Your task to perform on an android device: Open sound settings Image 0: 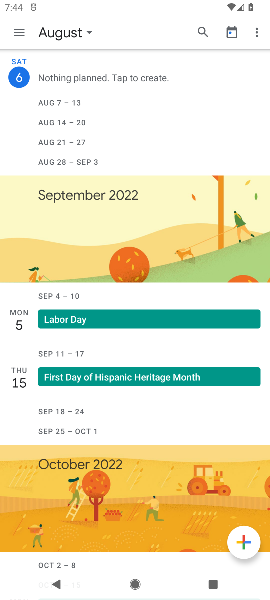
Step 0: press home button
Your task to perform on an android device: Open sound settings Image 1: 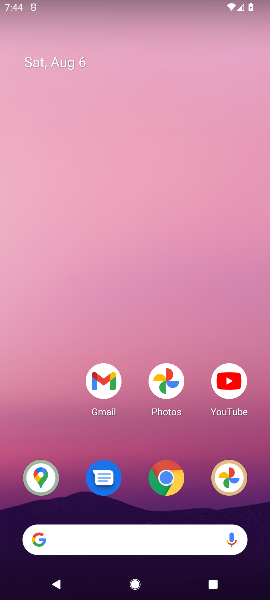
Step 1: drag from (53, 414) to (91, 8)
Your task to perform on an android device: Open sound settings Image 2: 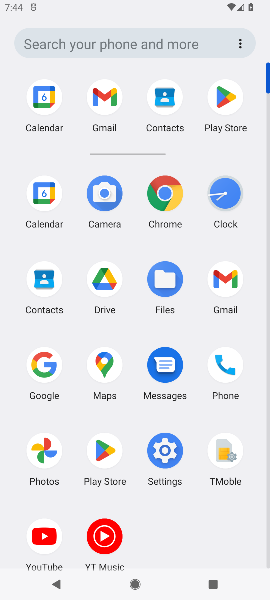
Step 2: click (166, 451)
Your task to perform on an android device: Open sound settings Image 3: 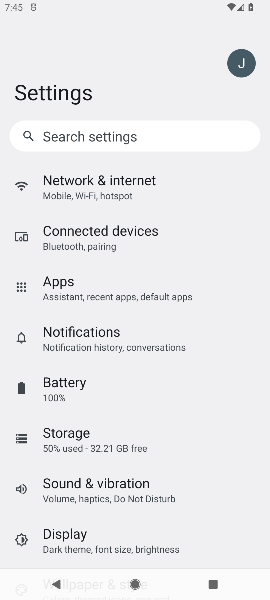
Step 3: click (140, 487)
Your task to perform on an android device: Open sound settings Image 4: 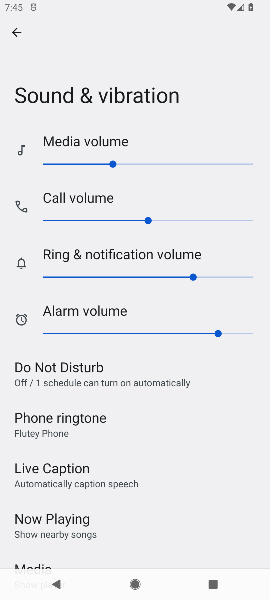
Step 4: task complete